Your task to perform on an android device: allow notifications from all sites in the chrome app Image 0: 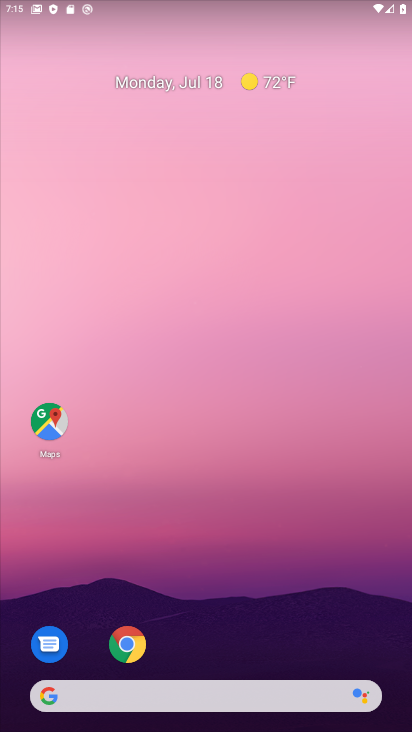
Step 0: drag from (395, 677) to (188, 61)
Your task to perform on an android device: allow notifications from all sites in the chrome app Image 1: 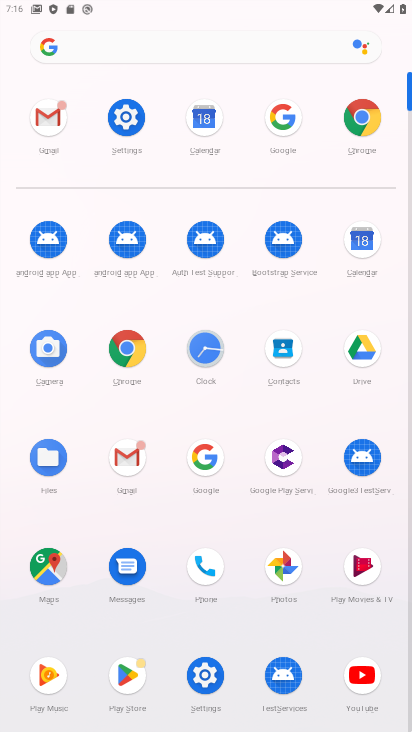
Step 1: click (124, 344)
Your task to perform on an android device: allow notifications from all sites in the chrome app Image 2: 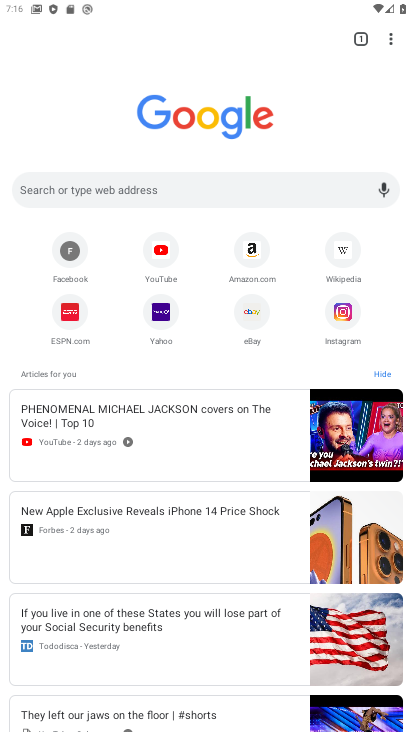
Step 2: click (392, 33)
Your task to perform on an android device: allow notifications from all sites in the chrome app Image 3: 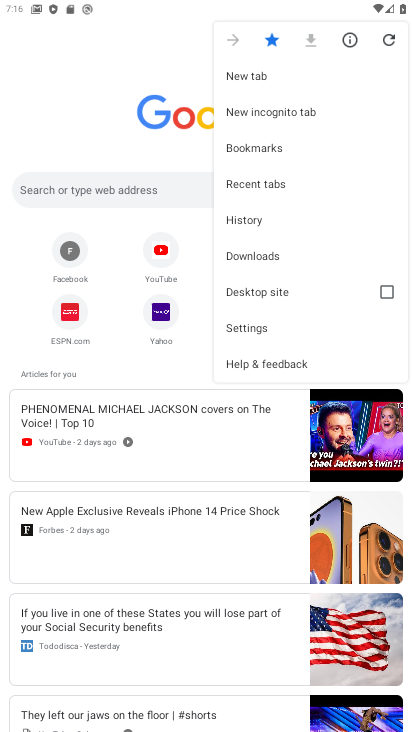
Step 3: click (272, 331)
Your task to perform on an android device: allow notifications from all sites in the chrome app Image 4: 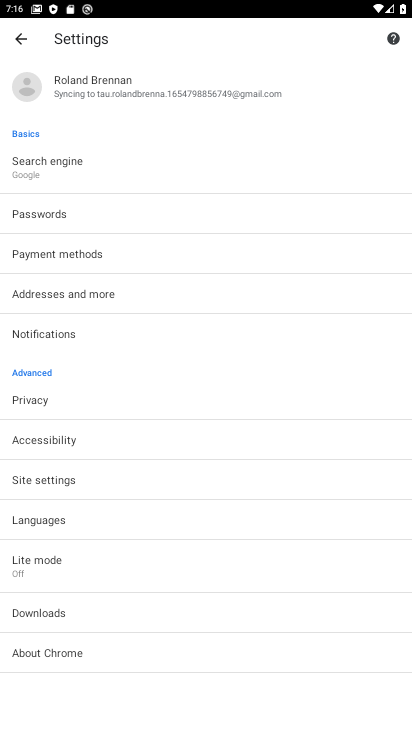
Step 4: click (58, 336)
Your task to perform on an android device: allow notifications from all sites in the chrome app Image 5: 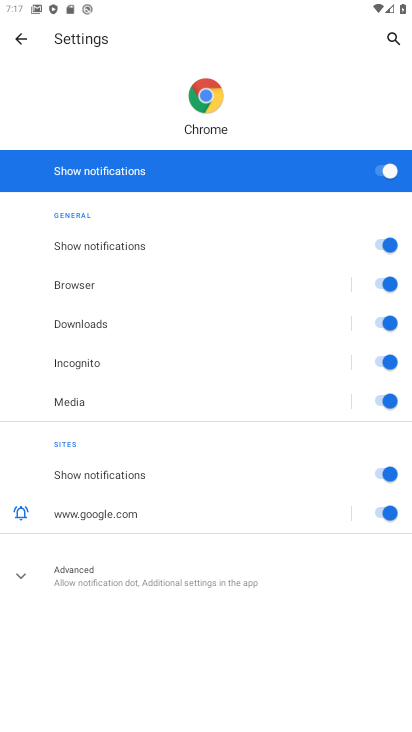
Step 5: task complete